Your task to perform on an android device: turn off location history Image 0: 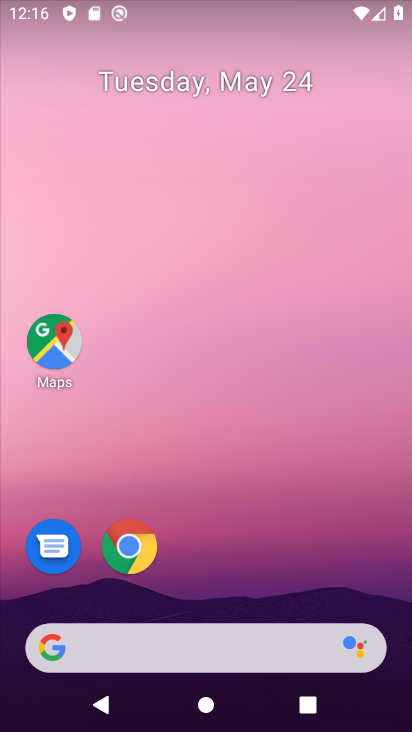
Step 0: drag from (234, 681) to (278, 6)
Your task to perform on an android device: turn off location history Image 1: 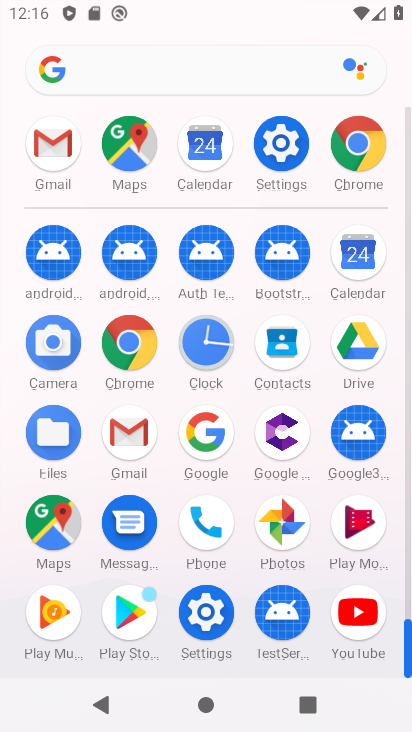
Step 1: click (290, 148)
Your task to perform on an android device: turn off location history Image 2: 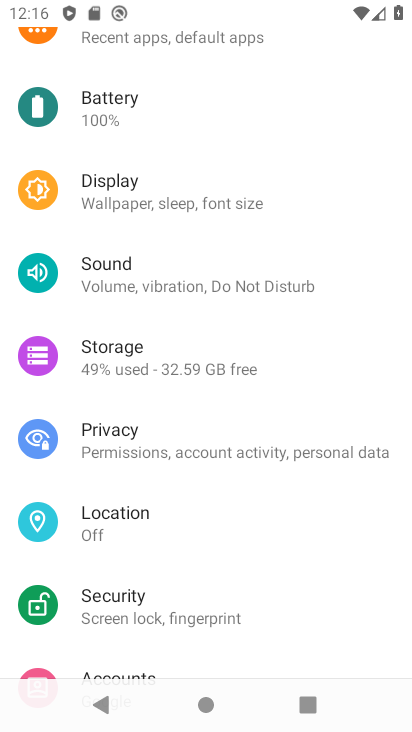
Step 2: click (159, 526)
Your task to perform on an android device: turn off location history Image 3: 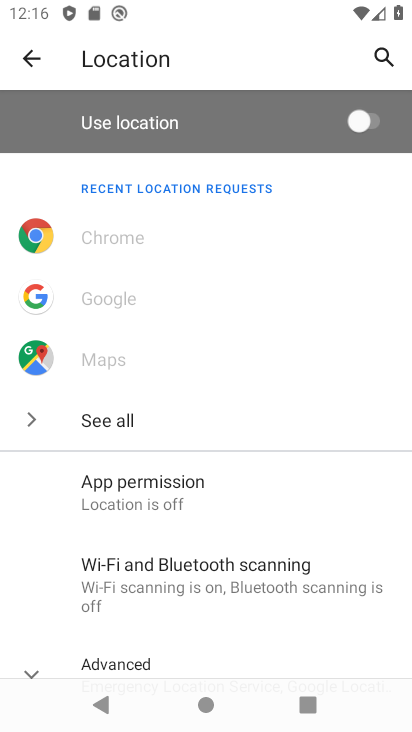
Step 3: drag from (245, 604) to (269, 176)
Your task to perform on an android device: turn off location history Image 4: 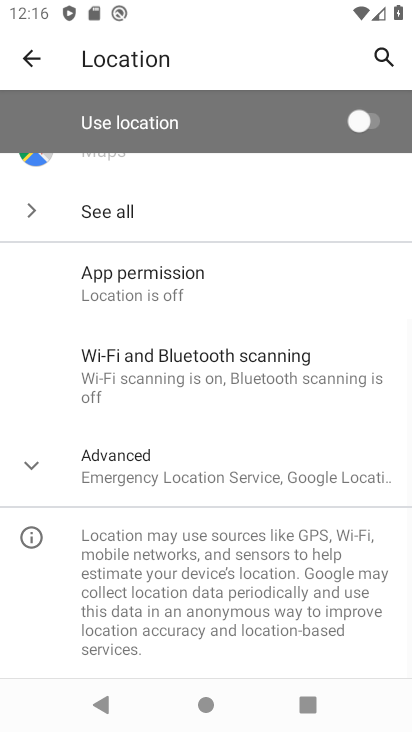
Step 4: click (225, 462)
Your task to perform on an android device: turn off location history Image 5: 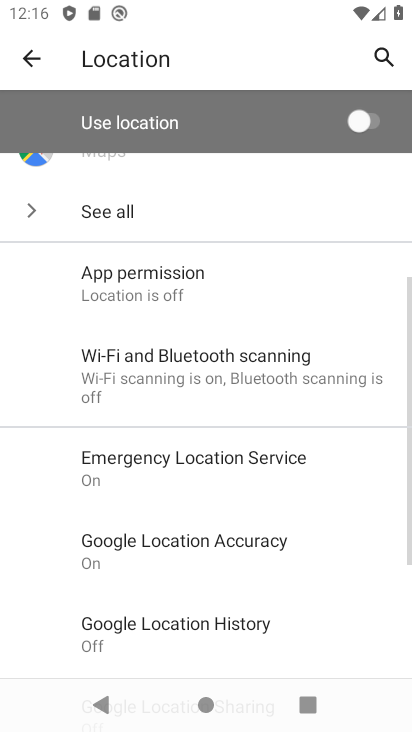
Step 5: drag from (238, 612) to (269, 334)
Your task to perform on an android device: turn off location history Image 6: 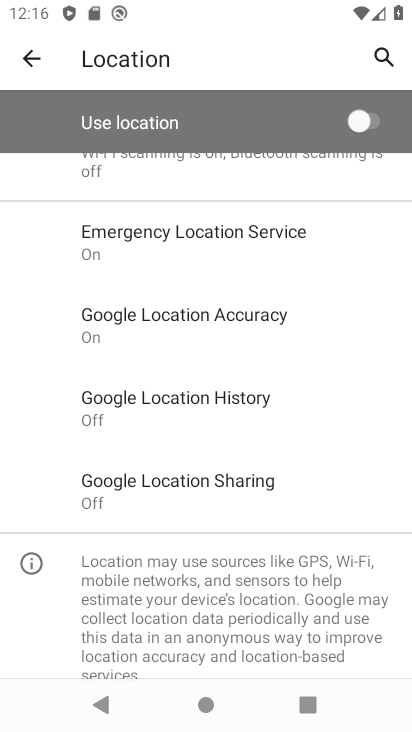
Step 6: click (237, 414)
Your task to perform on an android device: turn off location history Image 7: 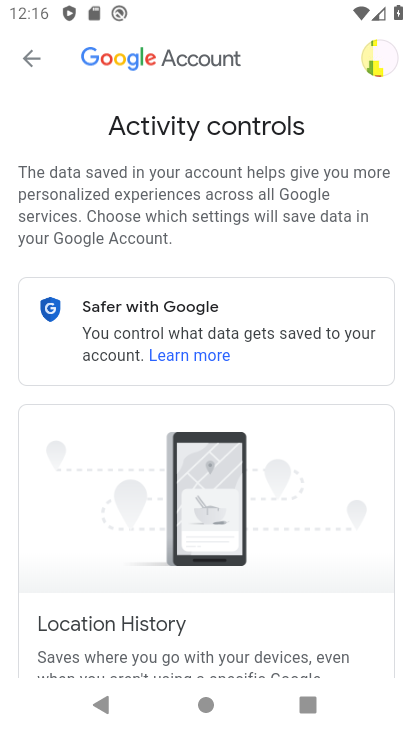
Step 7: task complete